Your task to perform on an android device: Open calendar and show me the third week of next month Image 0: 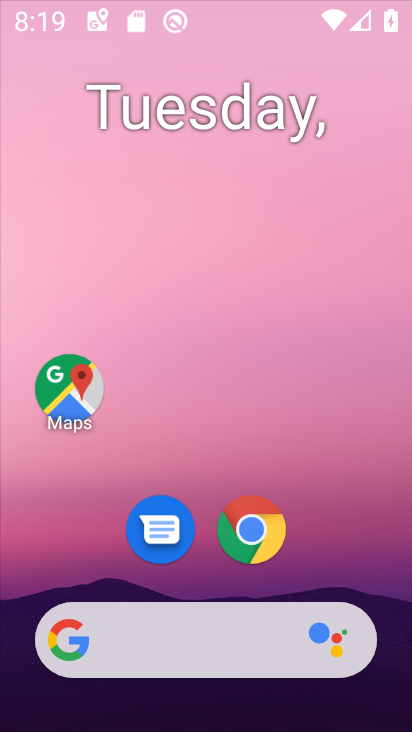
Step 0: drag from (185, 592) to (304, 87)
Your task to perform on an android device: Open calendar and show me the third week of next month Image 1: 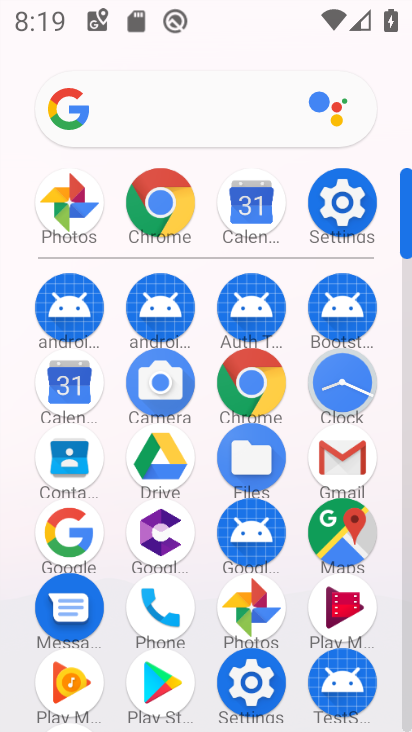
Step 1: click (67, 388)
Your task to perform on an android device: Open calendar and show me the third week of next month Image 2: 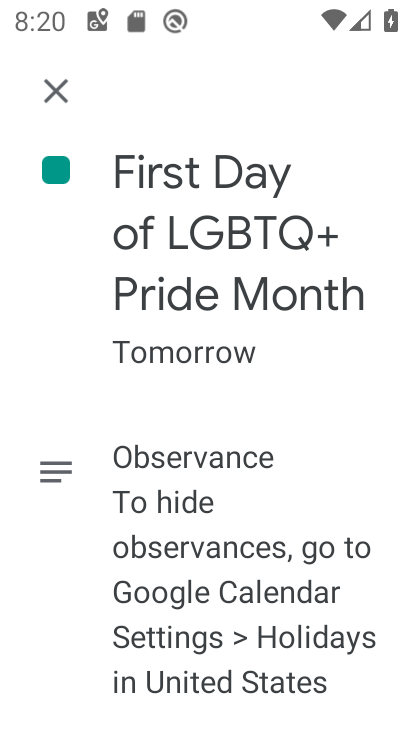
Step 2: click (48, 84)
Your task to perform on an android device: Open calendar and show me the third week of next month Image 3: 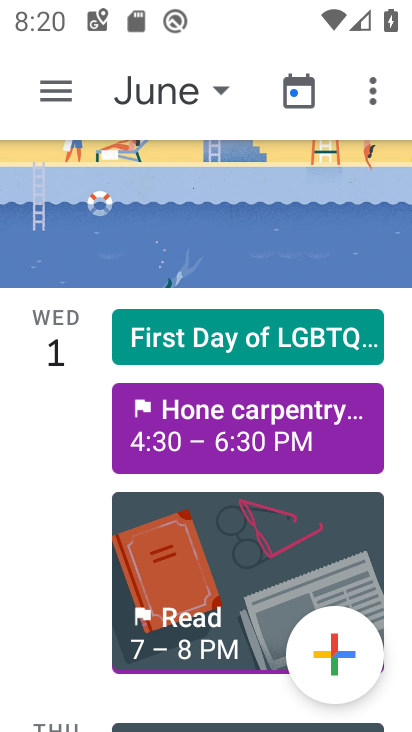
Step 3: drag from (238, 600) to (302, 152)
Your task to perform on an android device: Open calendar and show me the third week of next month Image 4: 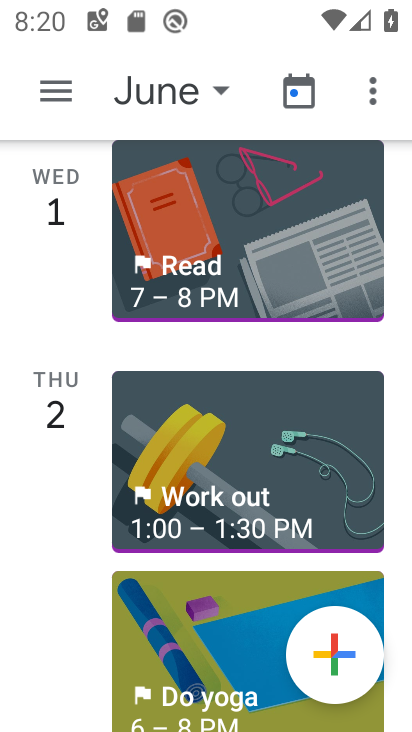
Step 4: click (211, 80)
Your task to perform on an android device: Open calendar and show me the third week of next month Image 5: 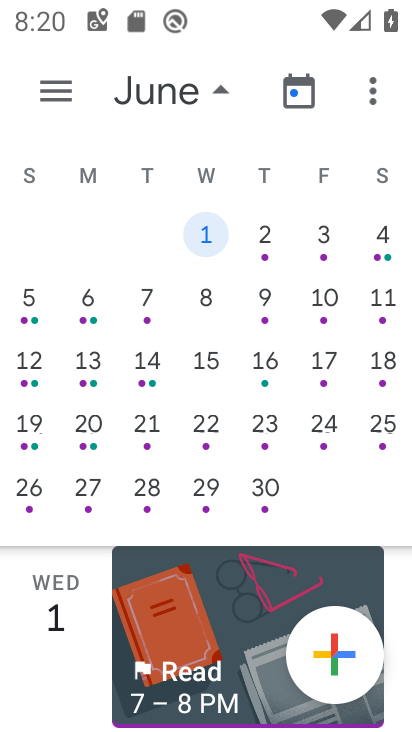
Step 5: click (95, 358)
Your task to perform on an android device: Open calendar and show me the third week of next month Image 6: 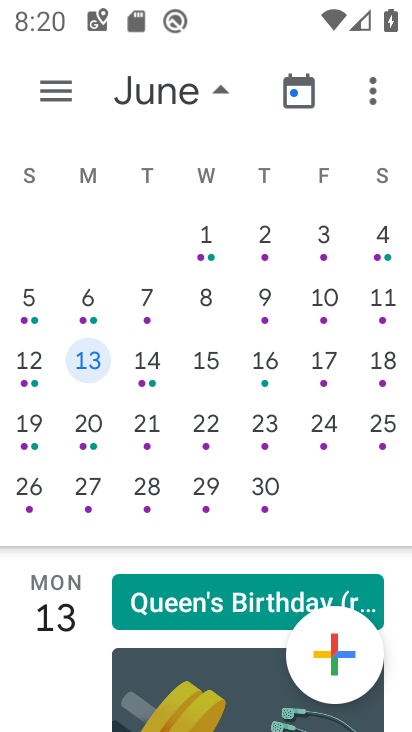
Step 6: task complete